Your task to perform on an android device: find snoozed emails in the gmail app Image 0: 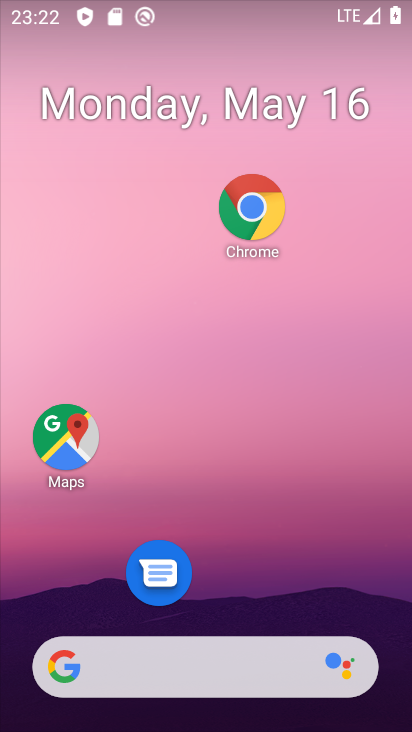
Step 0: drag from (287, 647) to (294, 70)
Your task to perform on an android device: find snoozed emails in the gmail app Image 1: 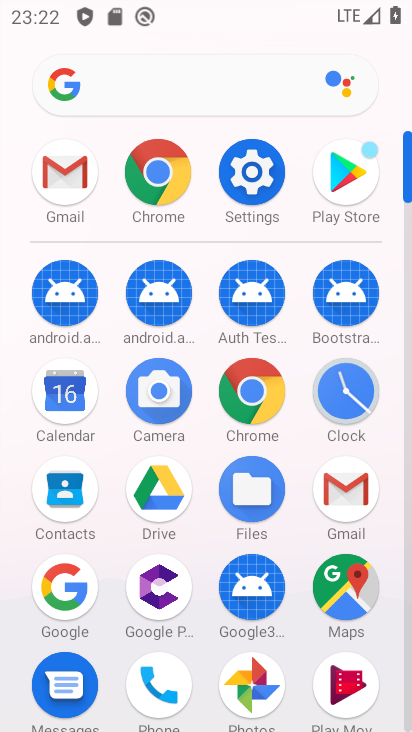
Step 1: click (347, 483)
Your task to perform on an android device: find snoozed emails in the gmail app Image 2: 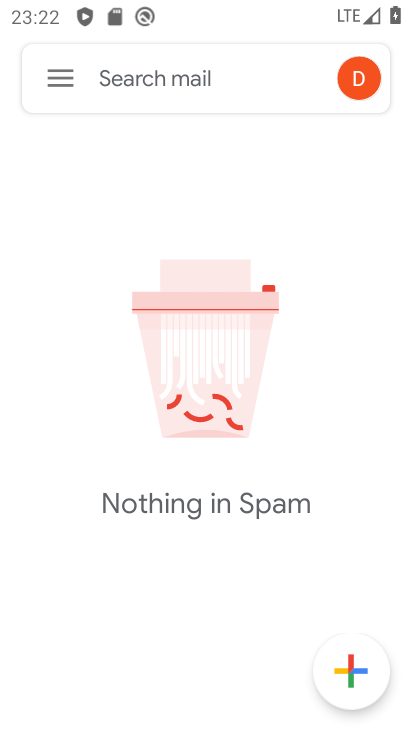
Step 2: click (57, 76)
Your task to perform on an android device: find snoozed emails in the gmail app Image 3: 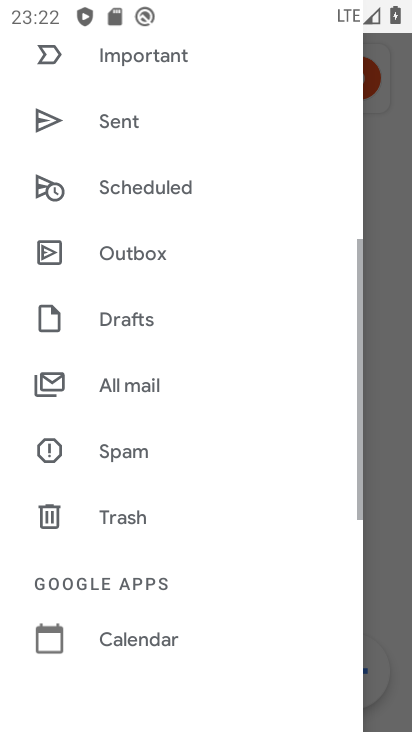
Step 3: drag from (181, 181) to (279, 563)
Your task to perform on an android device: find snoozed emails in the gmail app Image 4: 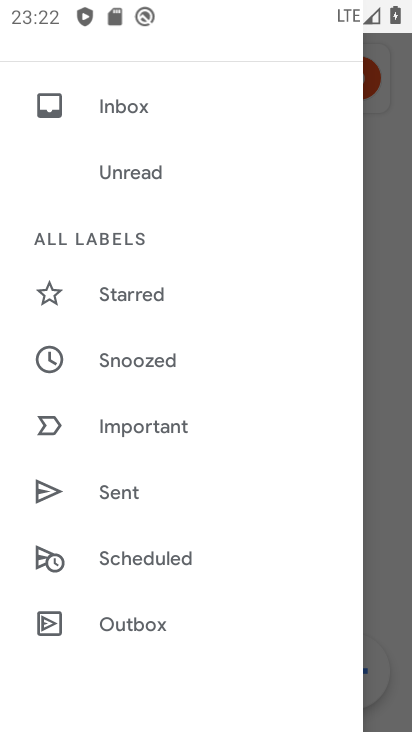
Step 4: click (176, 358)
Your task to perform on an android device: find snoozed emails in the gmail app Image 5: 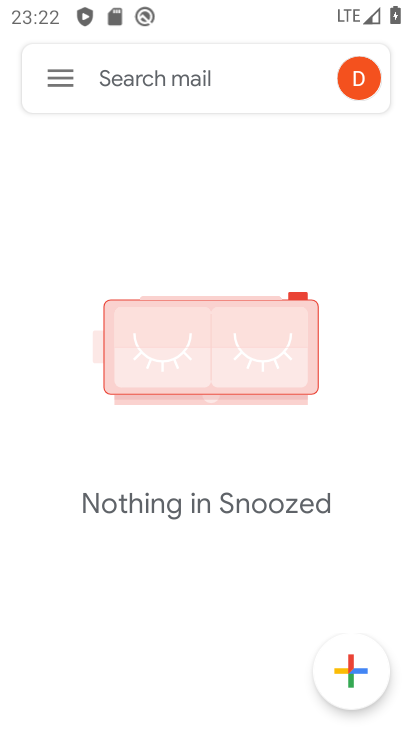
Step 5: task complete